Your task to perform on an android device: Open Google Maps Image 0: 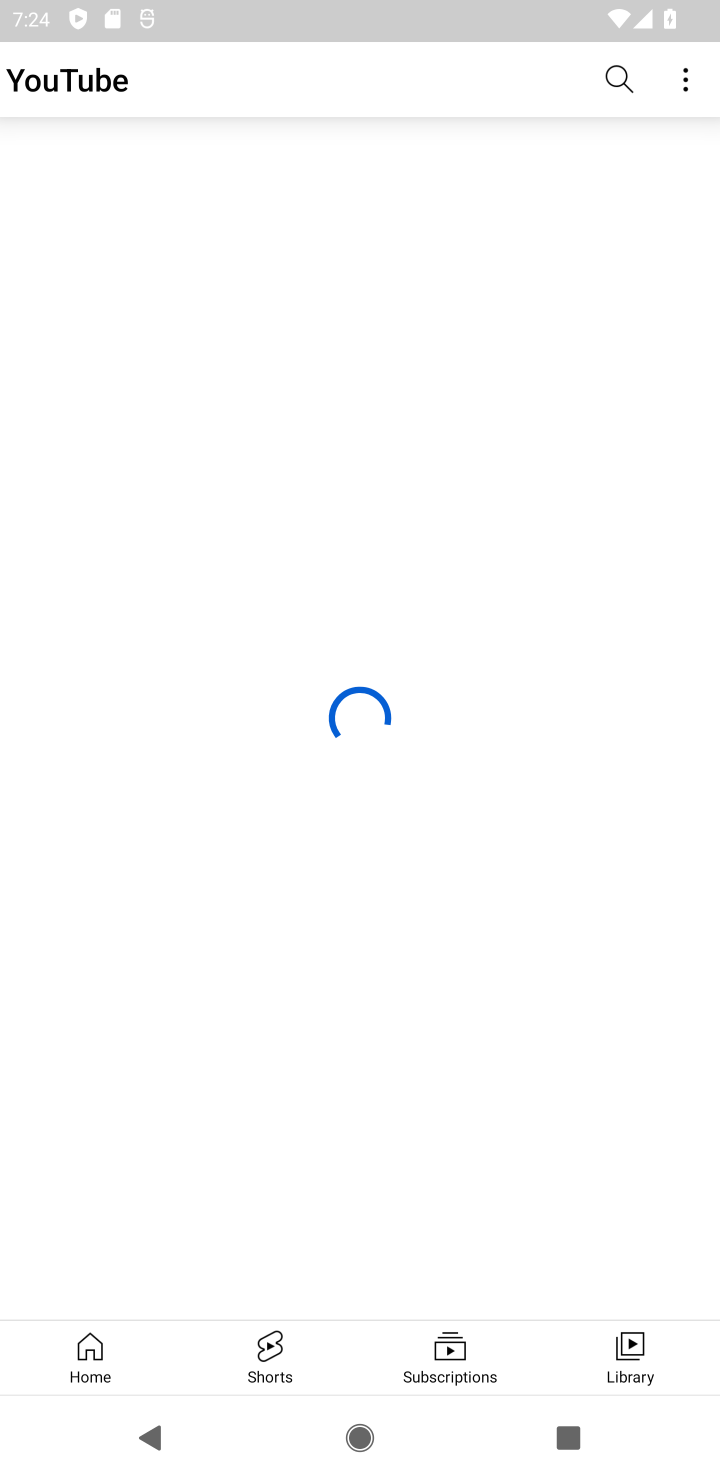
Step 0: press home button
Your task to perform on an android device: Open Google Maps Image 1: 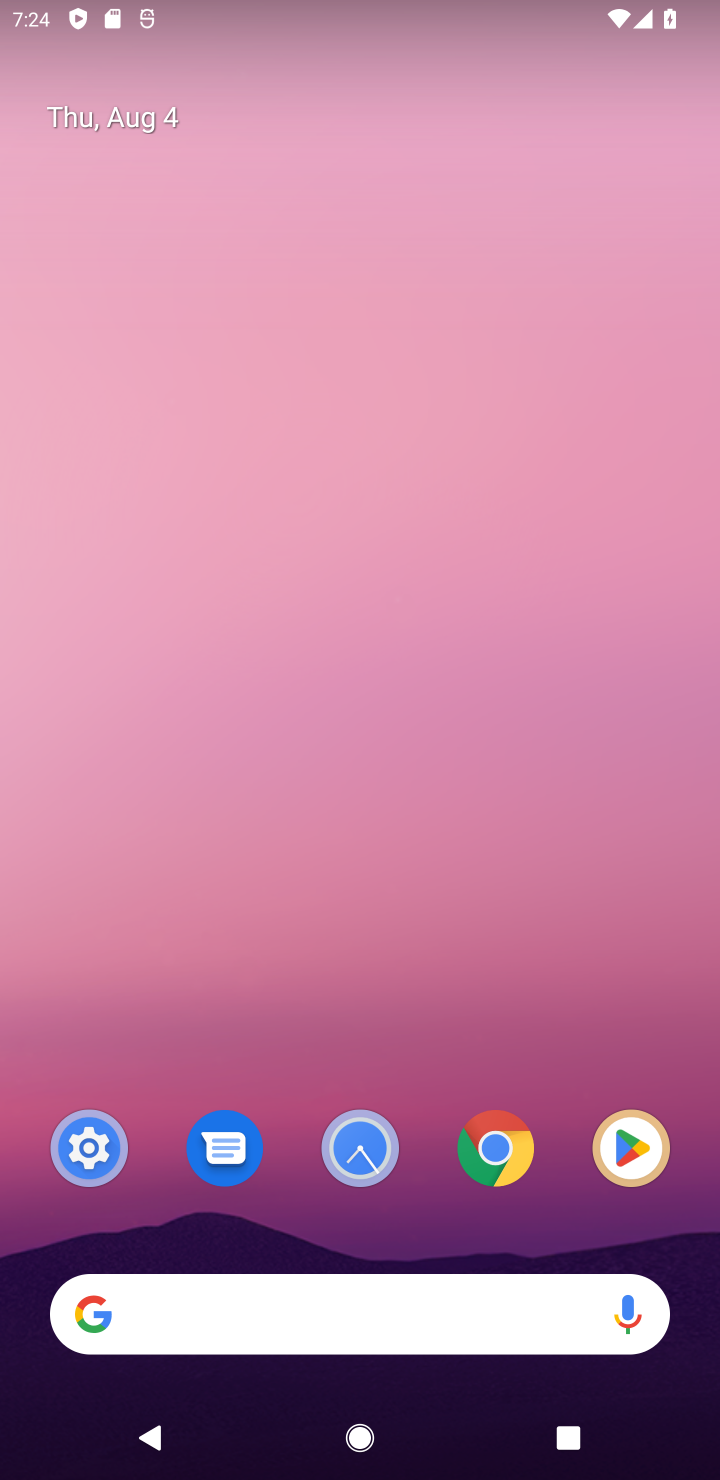
Step 1: drag from (446, 1212) to (406, 648)
Your task to perform on an android device: Open Google Maps Image 2: 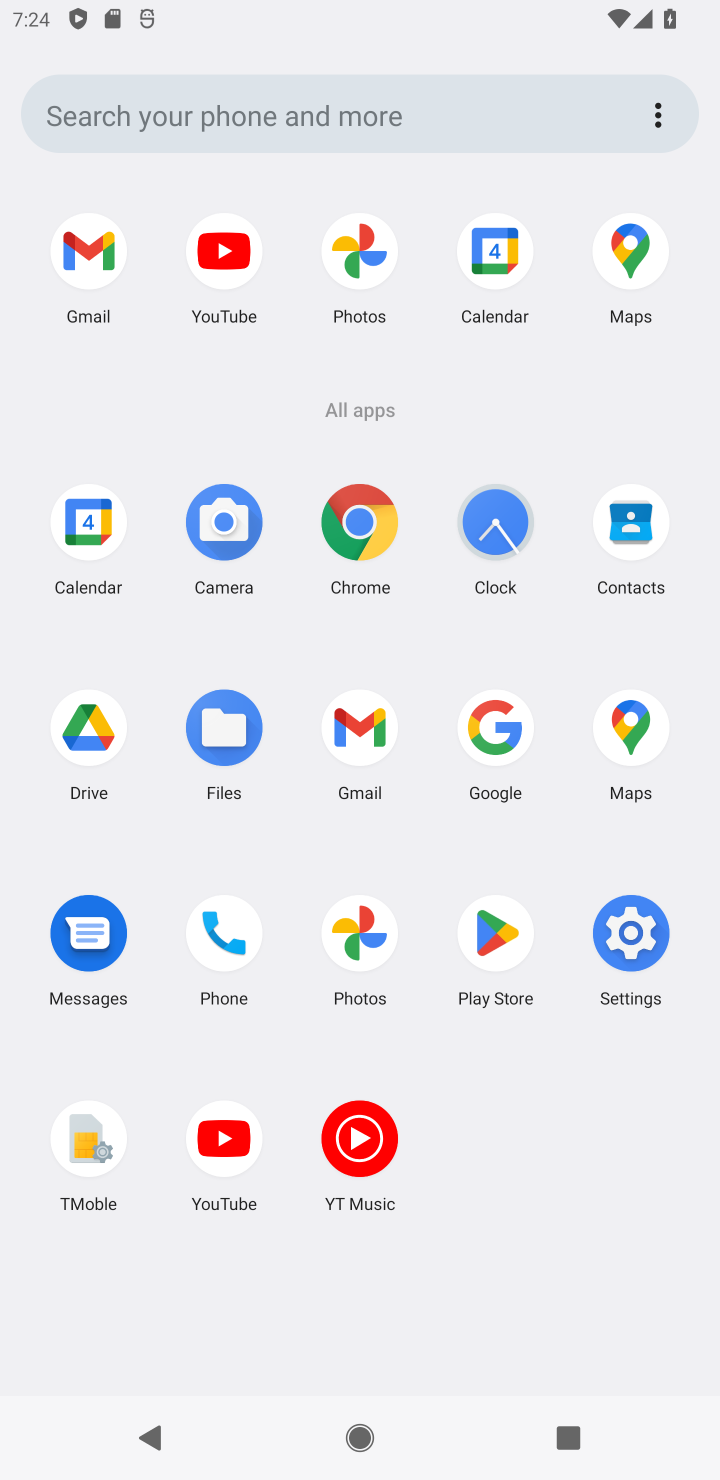
Step 2: click (641, 728)
Your task to perform on an android device: Open Google Maps Image 3: 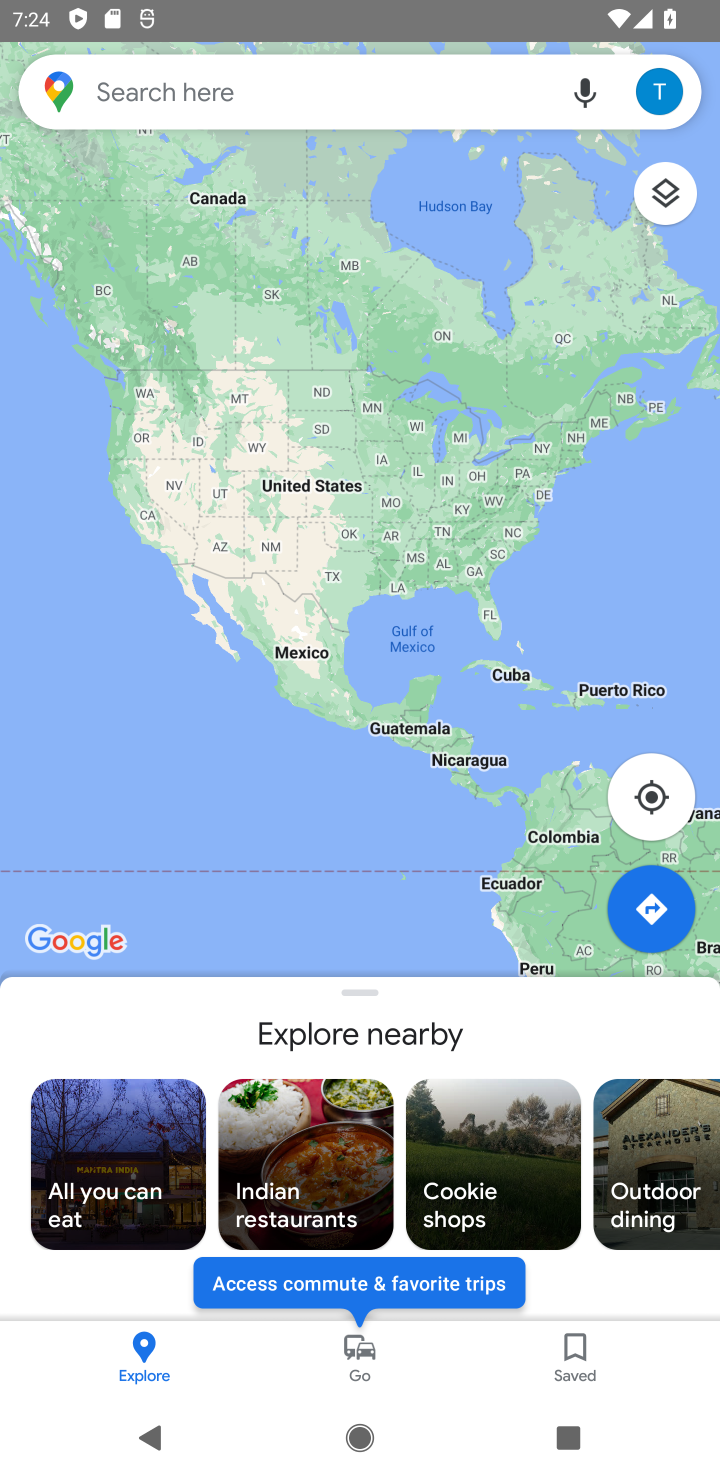
Step 3: task complete